Your task to perform on an android device: Open the stopwatch Image 0: 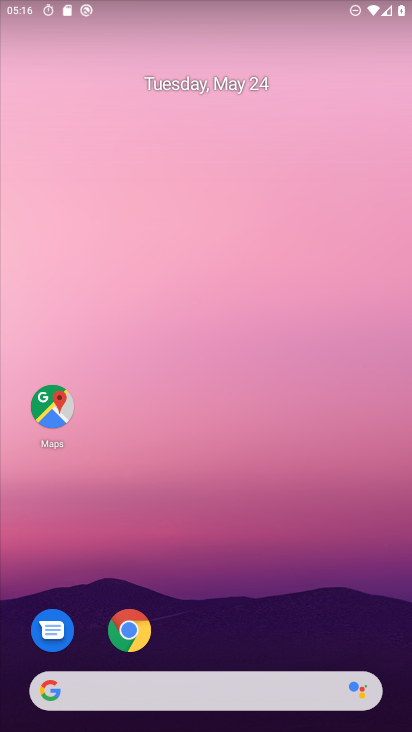
Step 0: drag from (236, 630) to (241, 107)
Your task to perform on an android device: Open the stopwatch Image 1: 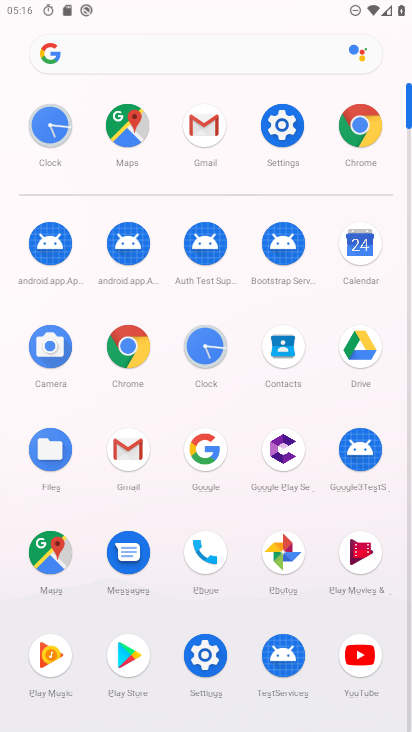
Step 1: click (213, 337)
Your task to perform on an android device: Open the stopwatch Image 2: 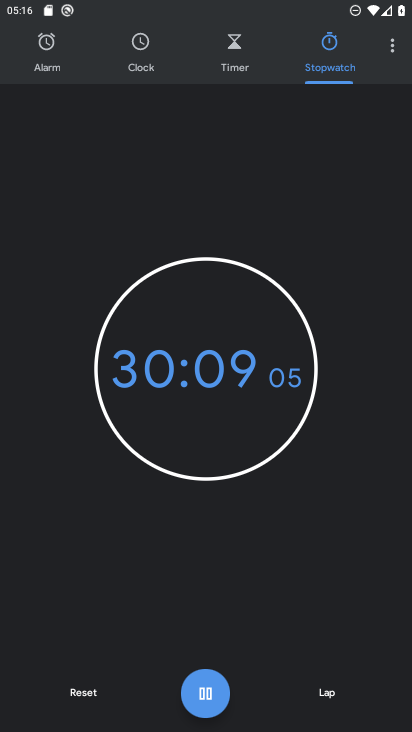
Step 2: task complete